Your task to perform on an android device: toggle location history Image 0: 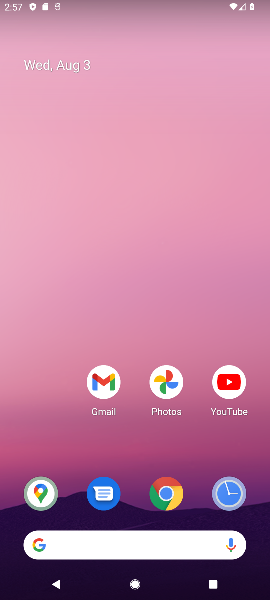
Step 0: drag from (34, 516) to (137, 0)
Your task to perform on an android device: toggle location history Image 1: 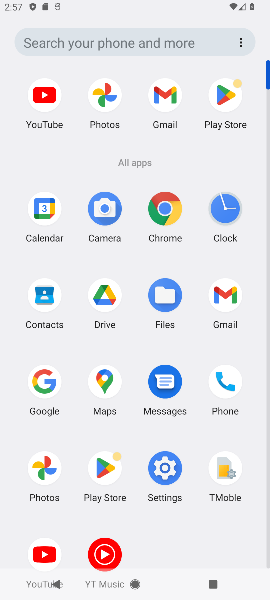
Step 1: click (165, 460)
Your task to perform on an android device: toggle location history Image 2: 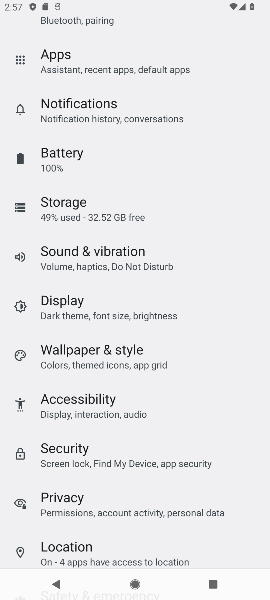
Step 2: drag from (91, 541) to (138, 232)
Your task to perform on an android device: toggle location history Image 3: 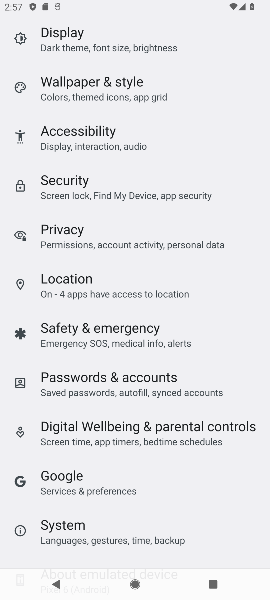
Step 3: click (81, 288)
Your task to perform on an android device: toggle location history Image 4: 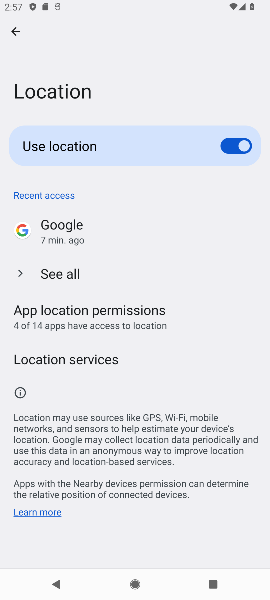
Step 4: drag from (44, 490) to (112, 212)
Your task to perform on an android device: toggle location history Image 5: 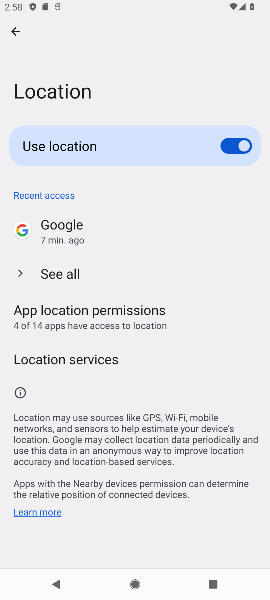
Step 5: click (63, 283)
Your task to perform on an android device: toggle location history Image 6: 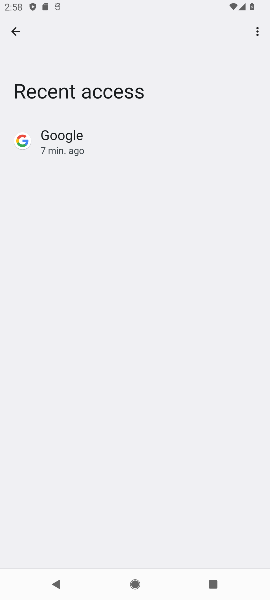
Step 6: click (14, 28)
Your task to perform on an android device: toggle location history Image 7: 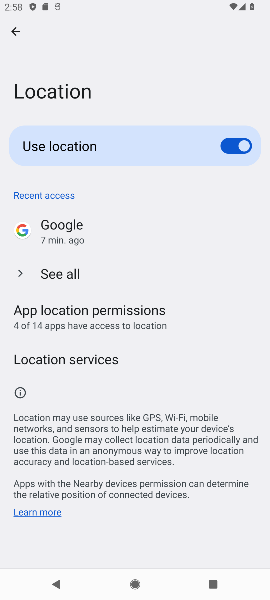
Step 7: click (30, 517)
Your task to perform on an android device: toggle location history Image 8: 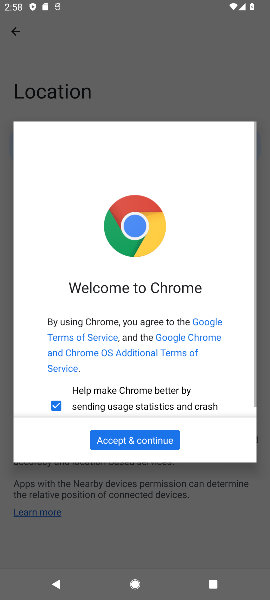
Step 8: click (118, 438)
Your task to perform on an android device: toggle location history Image 9: 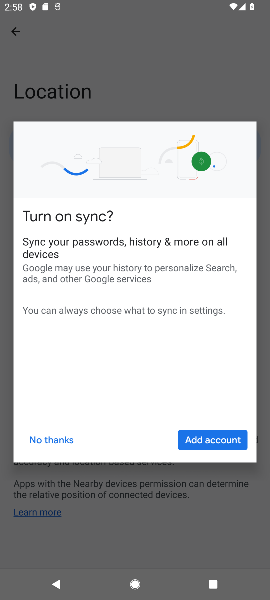
Step 9: click (59, 438)
Your task to perform on an android device: toggle location history Image 10: 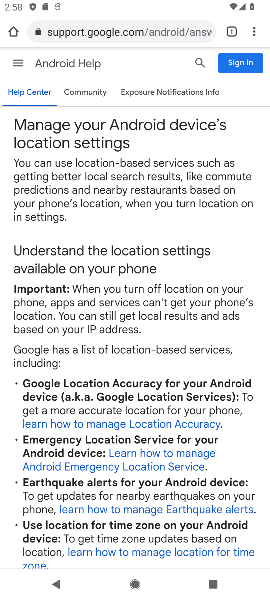
Step 10: drag from (125, 534) to (218, 113)
Your task to perform on an android device: toggle location history Image 11: 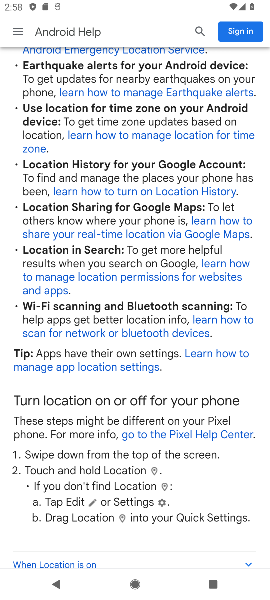
Step 11: drag from (51, 548) to (168, 157)
Your task to perform on an android device: toggle location history Image 12: 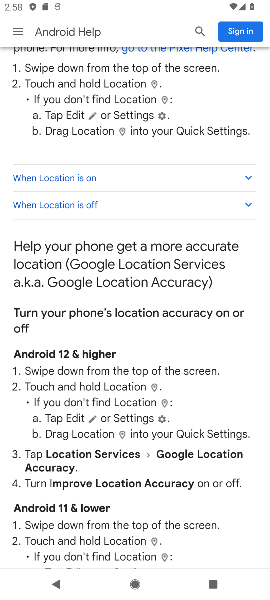
Step 12: drag from (145, 456) to (204, 92)
Your task to perform on an android device: toggle location history Image 13: 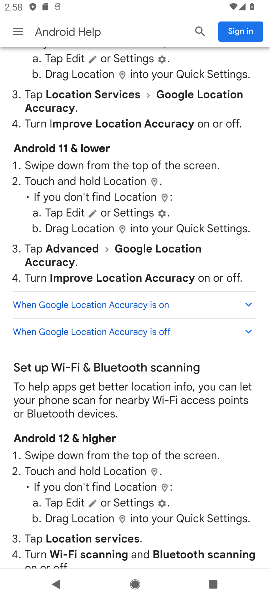
Step 13: press back button
Your task to perform on an android device: toggle location history Image 14: 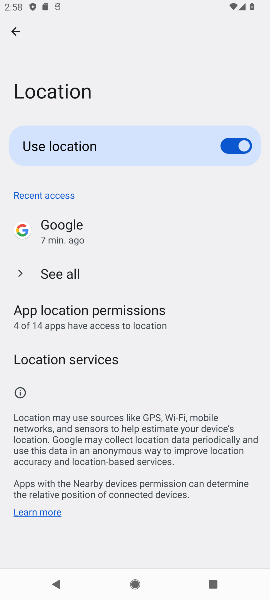
Step 14: drag from (54, 487) to (143, 186)
Your task to perform on an android device: toggle location history Image 15: 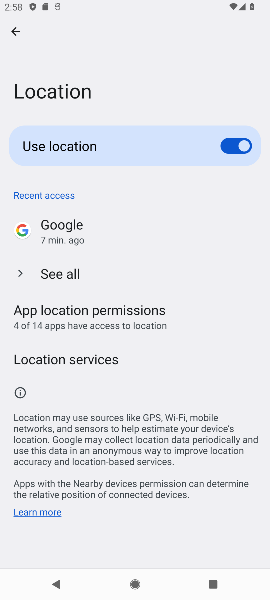
Step 15: click (17, 35)
Your task to perform on an android device: toggle location history Image 16: 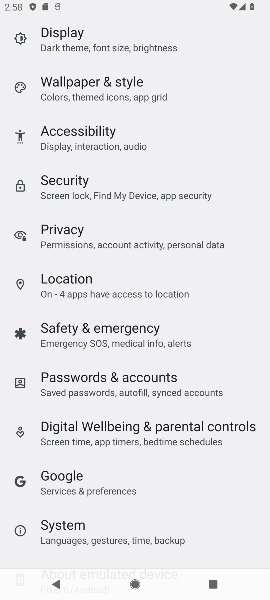
Step 16: drag from (108, 152) to (47, 519)
Your task to perform on an android device: toggle location history Image 17: 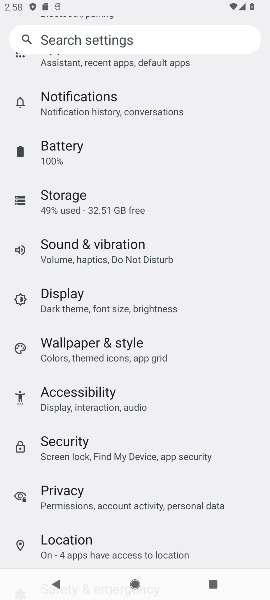
Step 17: drag from (191, 198) to (133, 583)
Your task to perform on an android device: toggle location history Image 18: 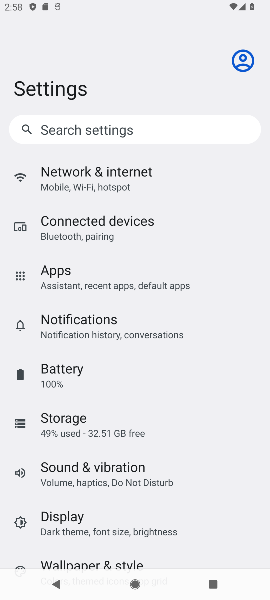
Step 18: drag from (55, 507) to (117, 128)
Your task to perform on an android device: toggle location history Image 19: 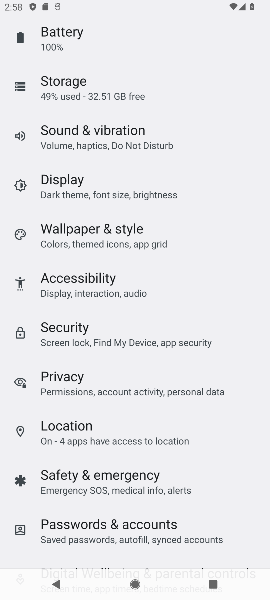
Step 19: click (74, 425)
Your task to perform on an android device: toggle location history Image 20: 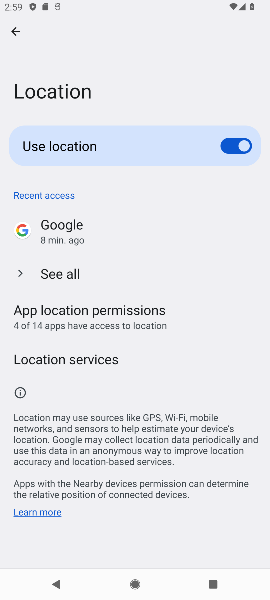
Step 20: click (98, 308)
Your task to perform on an android device: toggle location history Image 21: 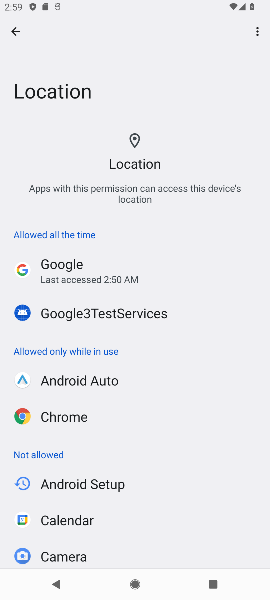
Step 21: task complete